Your task to perform on an android device: read, delete, or share a saved page in the chrome app Image 0: 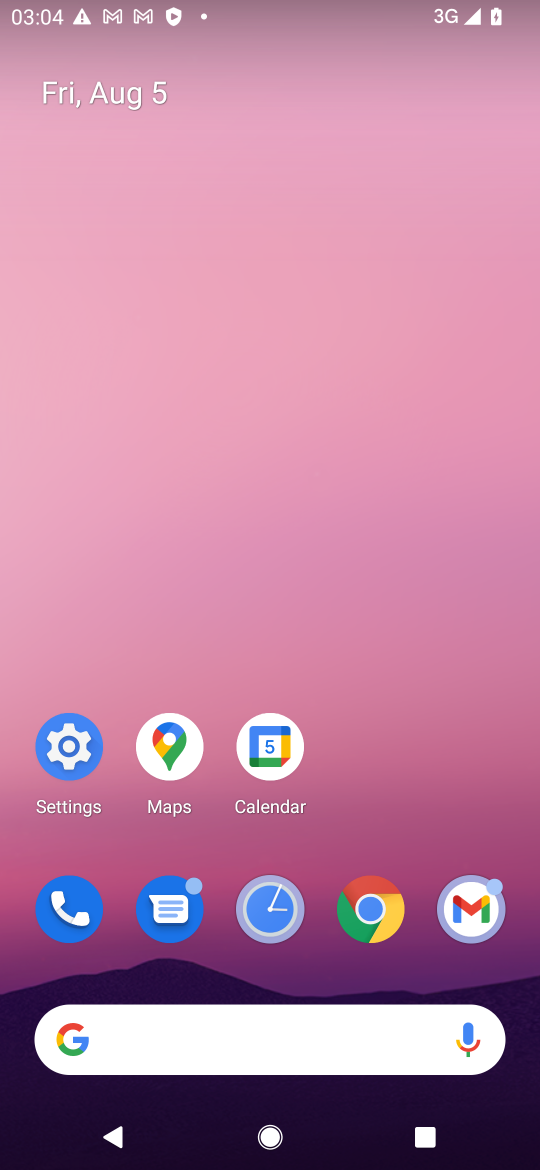
Step 0: click (377, 904)
Your task to perform on an android device: read, delete, or share a saved page in the chrome app Image 1: 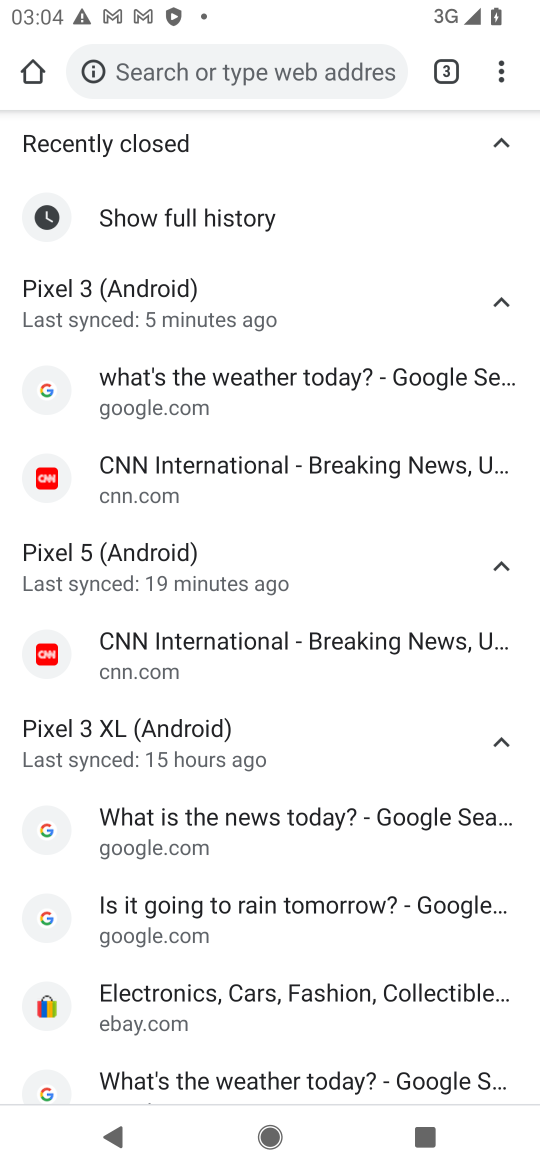
Step 1: click (504, 74)
Your task to perform on an android device: read, delete, or share a saved page in the chrome app Image 2: 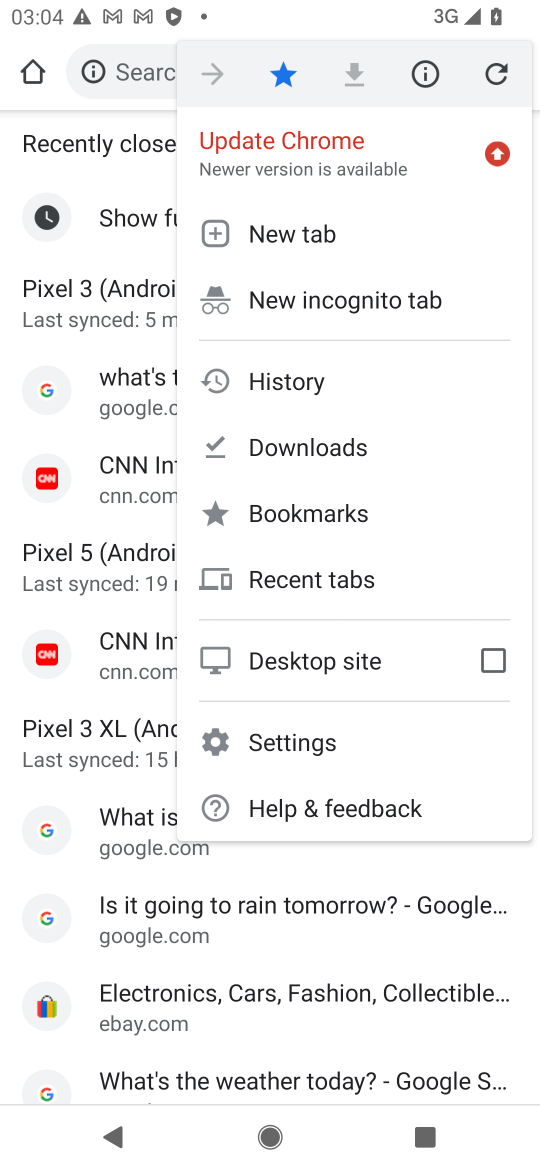
Step 2: click (327, 451)
Your task to perform on an android device: read, delete, or share a saved page in the chrome app Image 3: 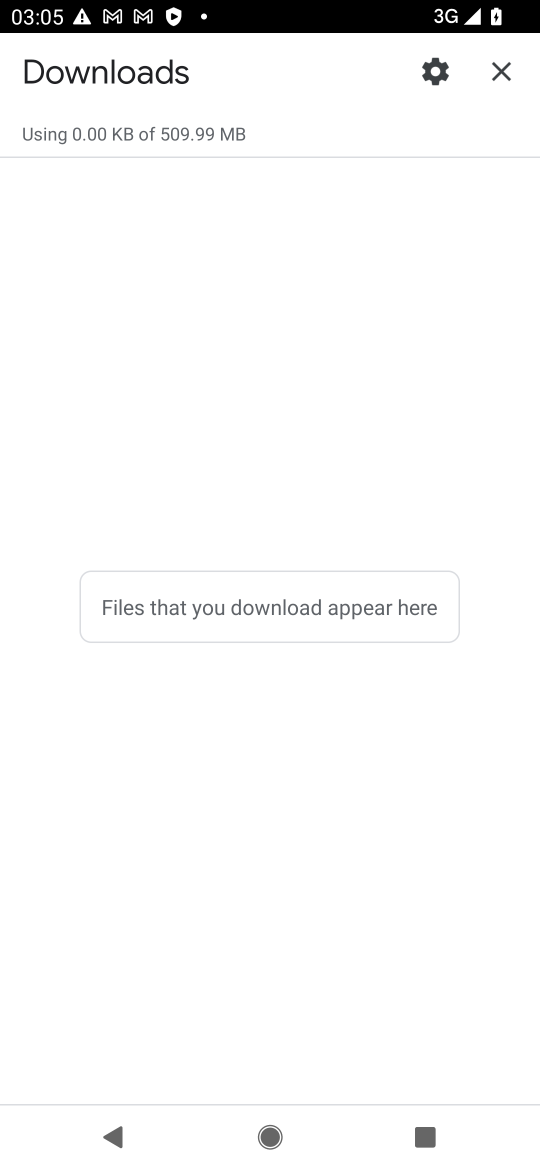
Step 3: task complete